Your task to perform on an android device: open wifi settings Image 0: 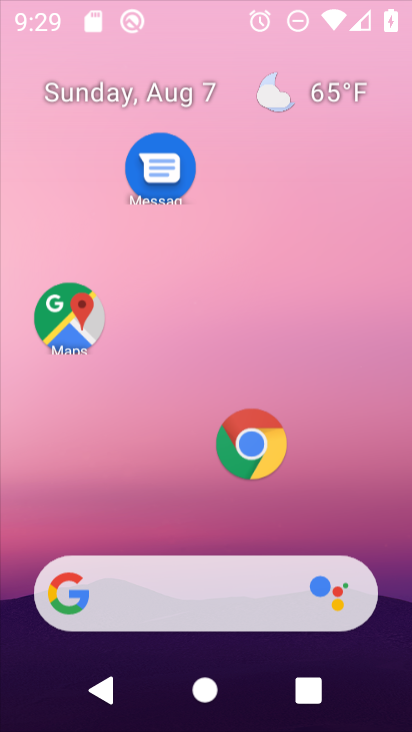
Step 0: press home button
Your task to perform on an android device: open wifi settings Image 1: 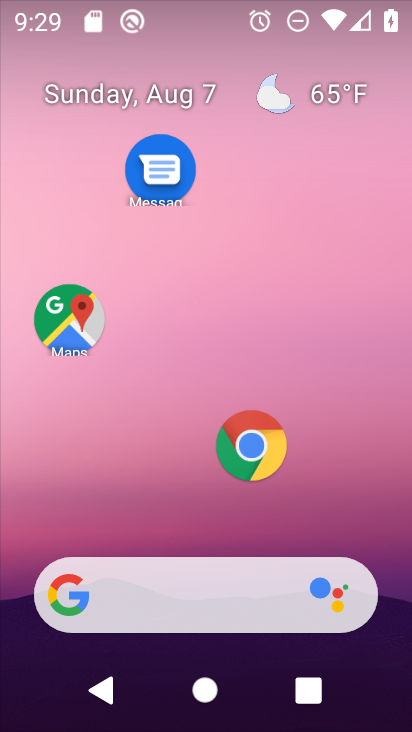
Step 1: drag from (195, 535) to (209, 52)
Your task to perform on an android device: open wifi settings Image 2: 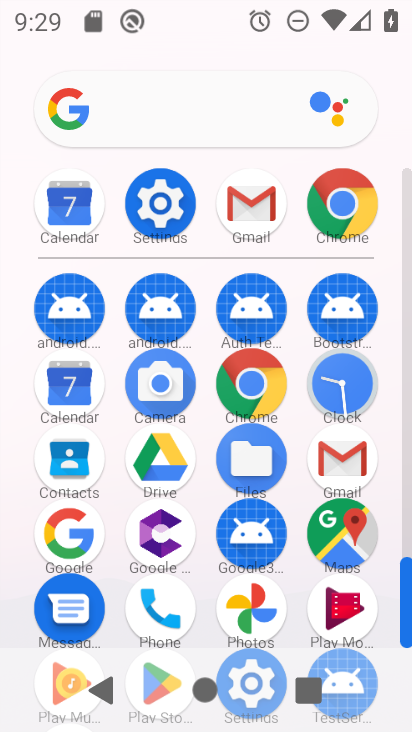
Step 2: click (160, 193)
Your task to perform on an android device: open wifi settings Image 3: 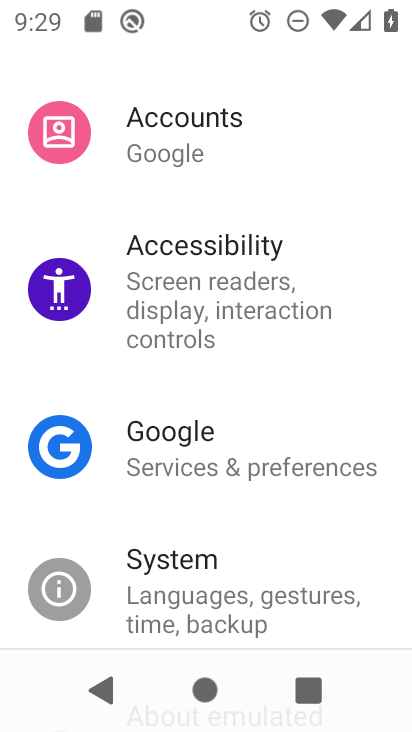
Step 3: drag from (109, 110) to (107, 595)
Your task to perform on an android device: open wifi settings Image 4: 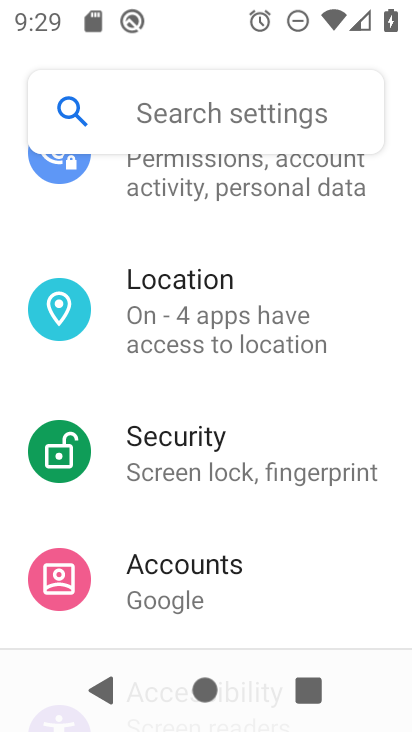
Step 4: drag from (111, 182) to (133, 649)
Your task to perform on an android device: open wifi settings Image 5: 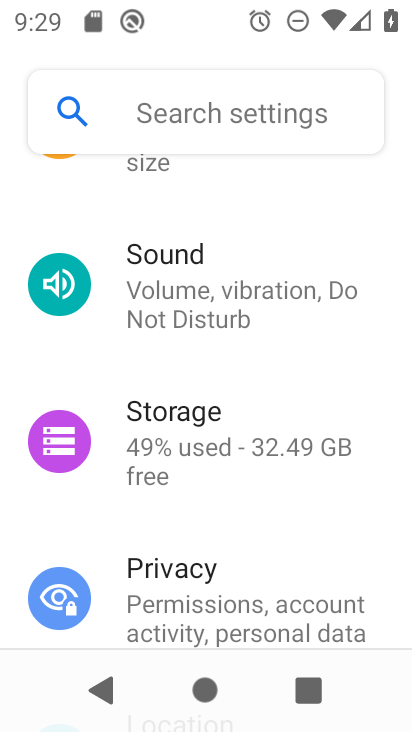
Step 5: drag from (112, 186) to (109, 662)
Your task to perform on an android device: open wifi settings Image 6: 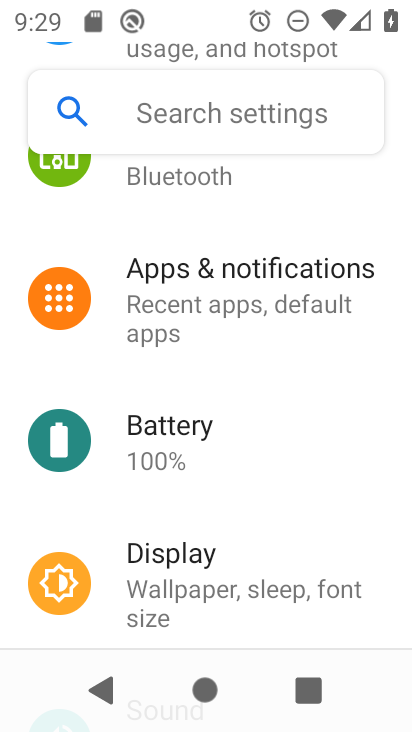
Step 6: drag from (120, 188) to (130, 619)
Your task to perform on an android device: open wifi settings Image 7: 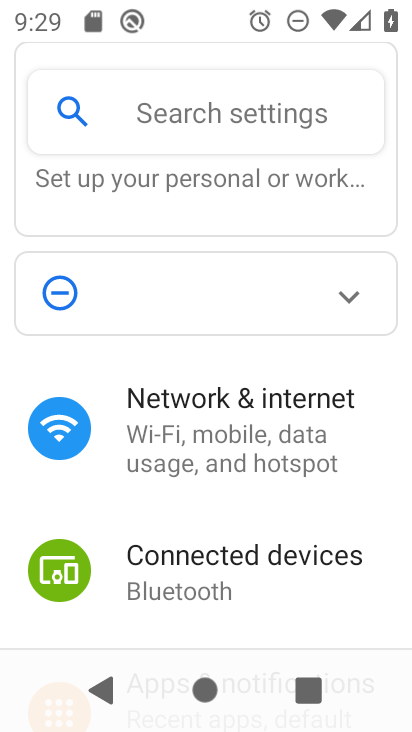
Step 7: click (186, 426)
Your task to perform on an android device: open wifi settings Image 8: 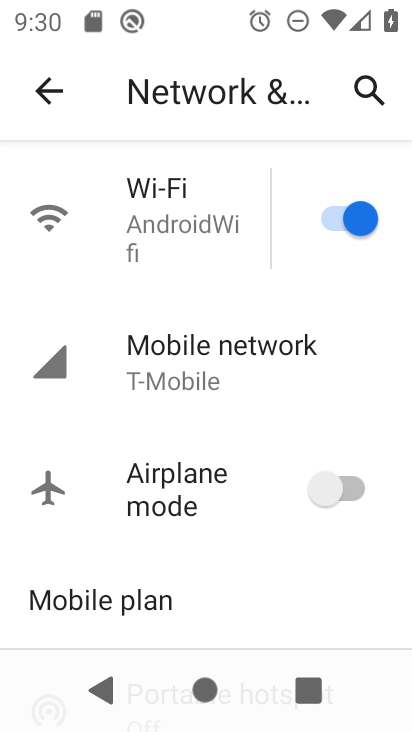
Step 8: click (199, 241)
Your task to perform on an android device: open wifi settings Image 9: 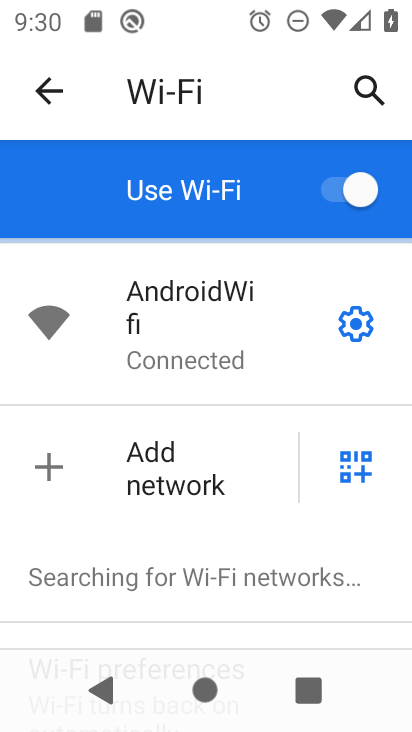
Step 9: task complete